Your task to perform on an android device: Show me productivity apps on the Play Store Image 0: 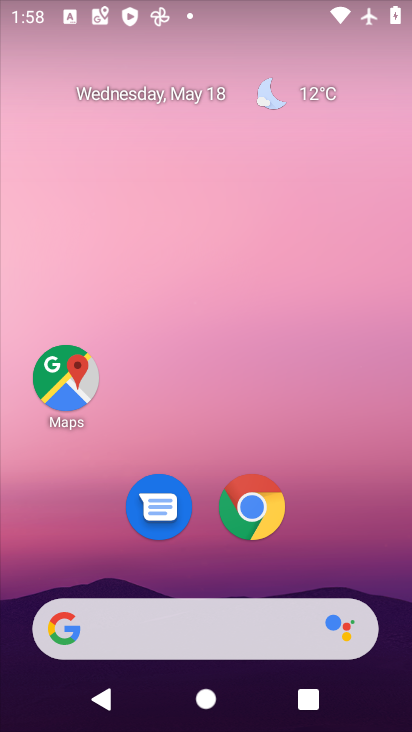
Step 0: drag from (380, 605) to (346, 153)
Your task to perform on an android device: Show me productivity apps on the Play Store Image 1: 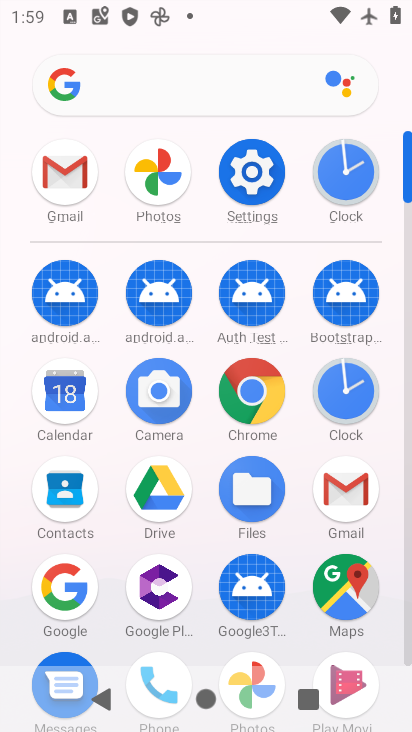
Step 1: click (408, 651)
Your task to perform on an android device: Show me productivity apps on the Play Store Image 2: 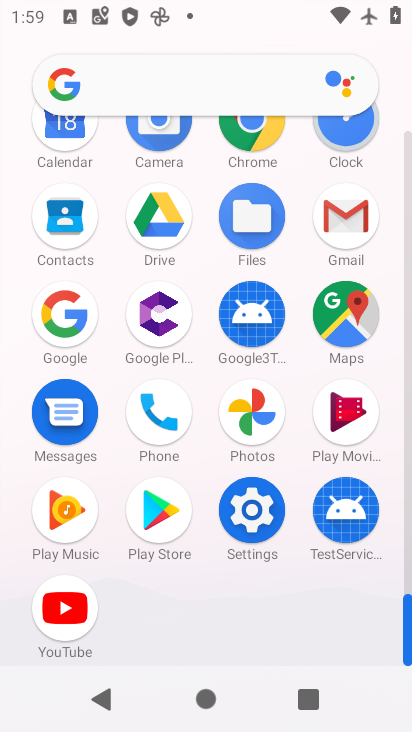
Step 2: click (152, 519)
Your task to perform on an android device: Show me productivity apps on the Play Store Image 3: 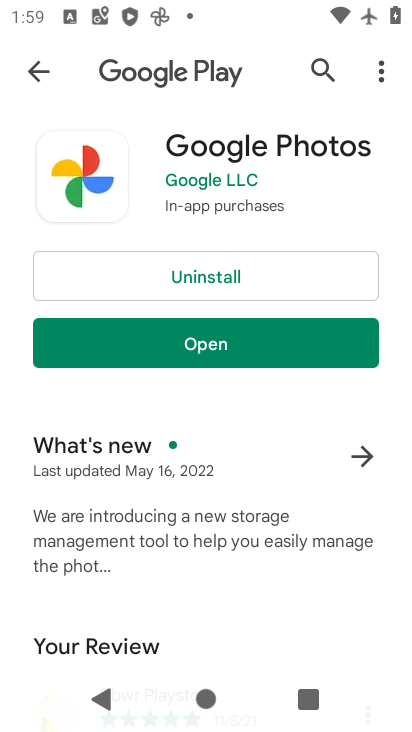
Step 3: press back button
Your task to perform on an android device: Show me productivity apps on the Play Store Image 4: 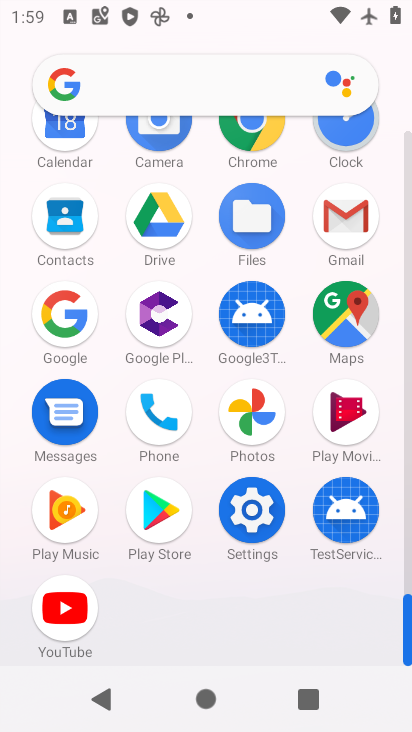
Step 4: click (166, 504)
Your task to perform on an android device: Show me productivity apps on the Play Store Image 5: 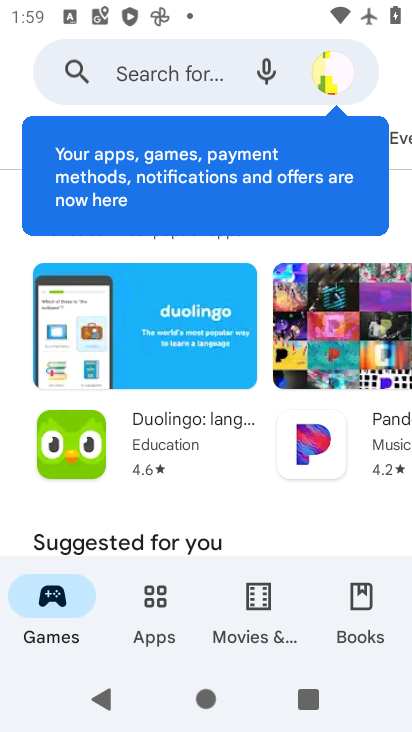
Step 5: click (158, 607)
Your task to perform on an android device: Show me productivity apps on the Play Store Image 6: 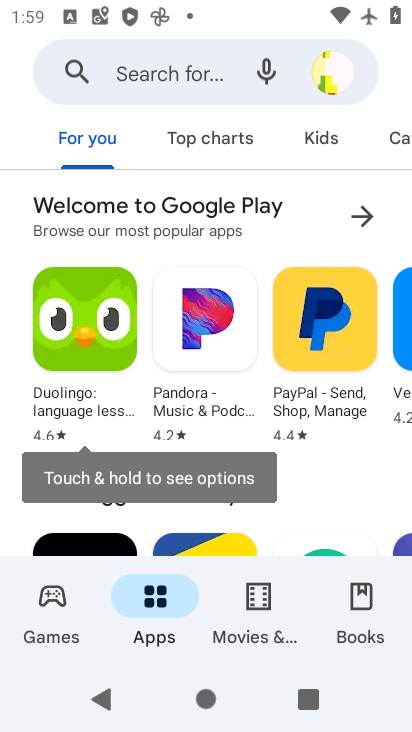
Step 6: click (390, 128)
Your task to perform on an android device: Show me productivity apps on the Play Store Image 7: 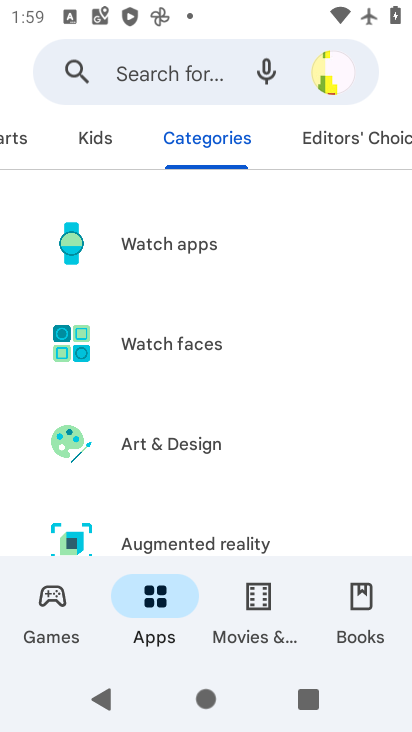
Step 7: drag from (213, 485) to (267, 145)
Your task to perform on an android device: Show me productivity apps on the Play Store Image 8: 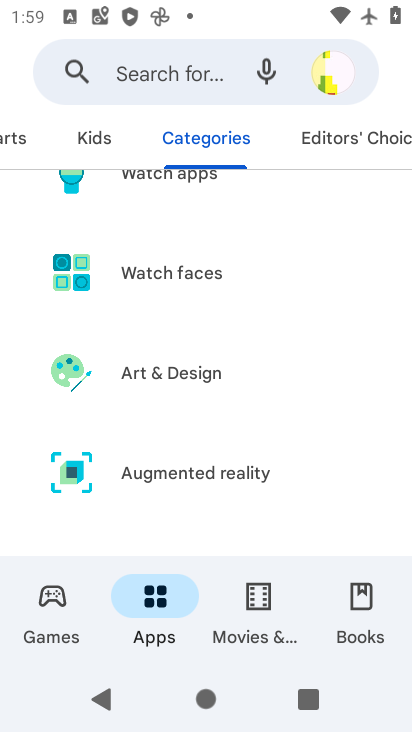
Step 8: drag from (288, 510) to (247, 144)
Your task to perform on an android device: Show me productivity apps on the Play Store Image 9: 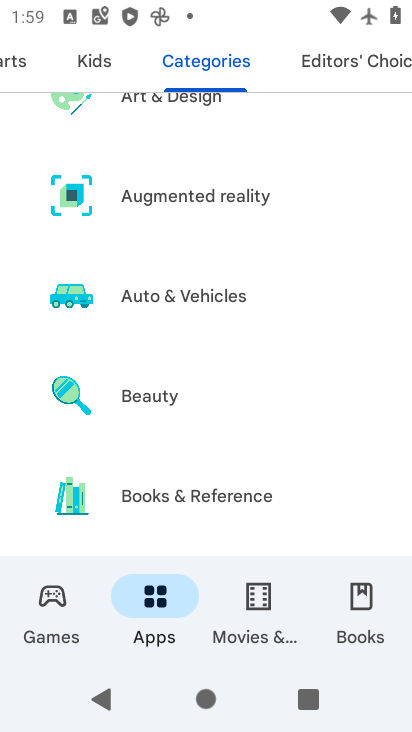
Step 9: drag from (281, 487) to (249, 80)
Your task to perform on an android device: Show me productivity apps on the Play Store Image 10: 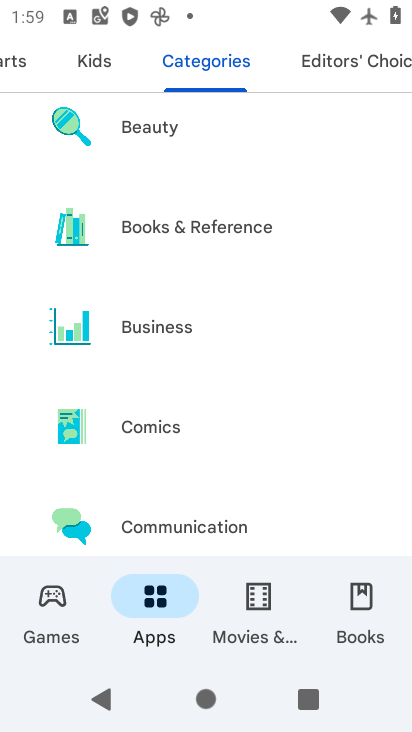
Step 10: drag from (289, 496) to (278, 103)
Your task to perform on an android device: Show me productivity apps on the Play Store Image 11: 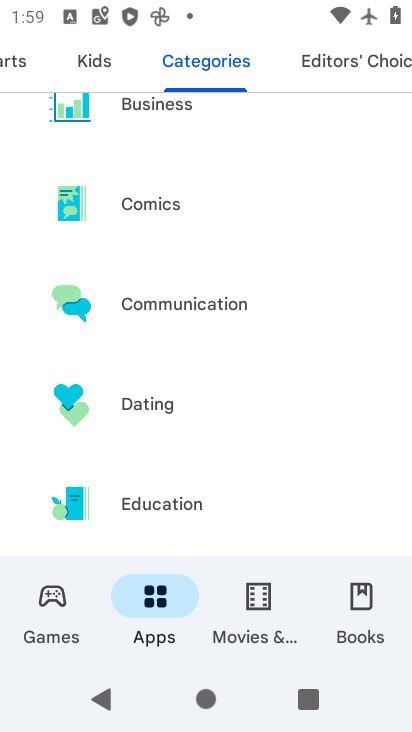
Step 11: drag from (280, 220) to (288, 132)
Your task to perform on an android device: Show me productivity apps on the Play Store Image 12: 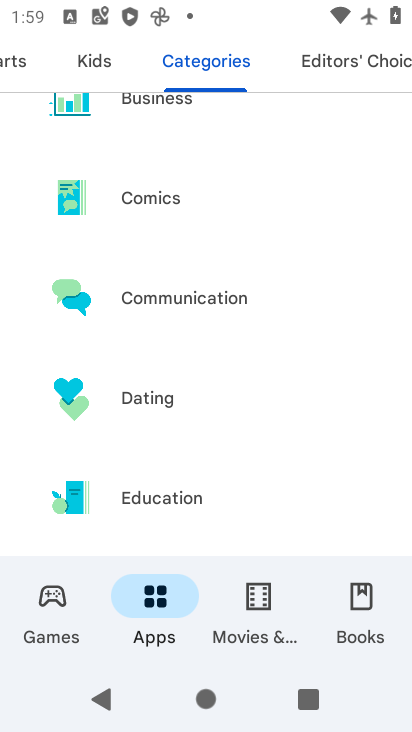
Step 12: drag from (255, 517) to (278, 118)
Your task to perform on an android device: Show me productivity apps on the Play Store Image 13: 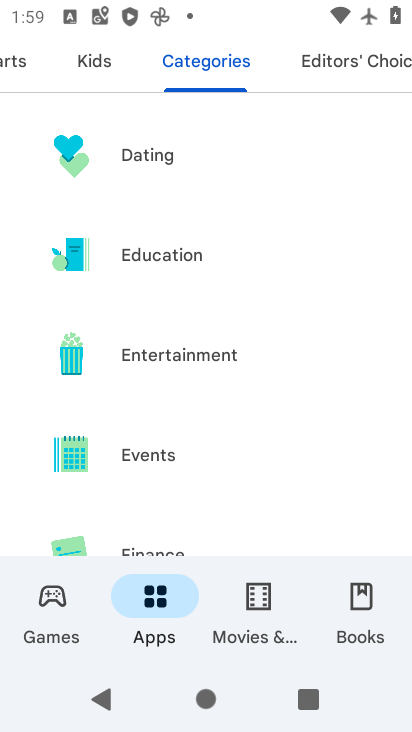
Step 13: drag from (249, 492) to (278, 126)
Your task to perform on an android device: Show me productivity apps on the Play Store Image 14: 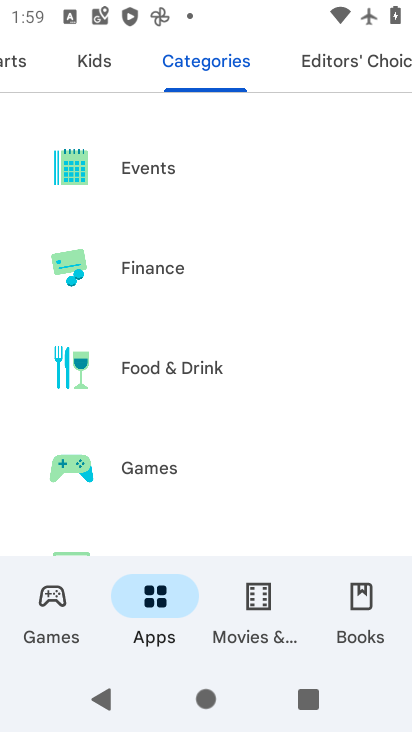
Step 14: drag from (252, 516) to (296, 148)
Your task to perform on an android device: Show me productivity apps on the Play Store Image 15: 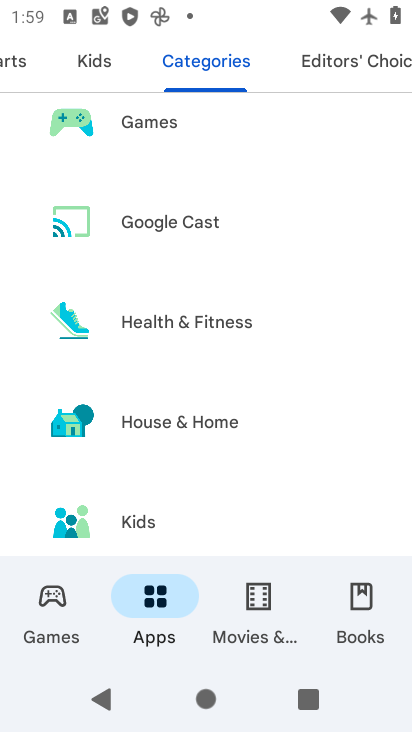
Step 15: drag from (239, 524) to (263, 52)
Your task to perform on an android device: Show me productivity apps on the Play Store Image 16: 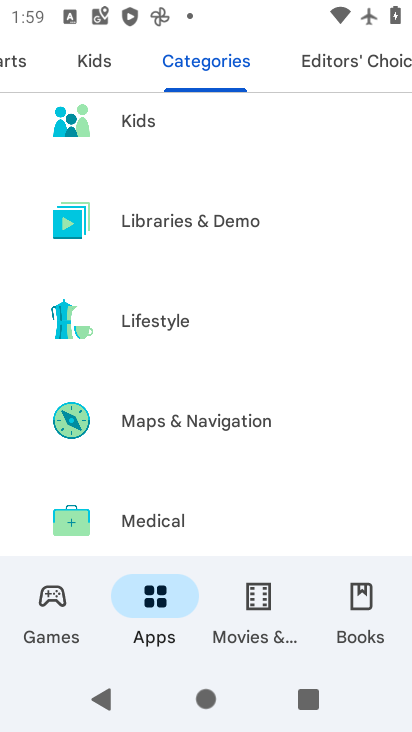
Step 16: drag from (281, 502) to (308, 122)
Your task to perform on an android device: Show me productivity apps on the Play Store Image 17: 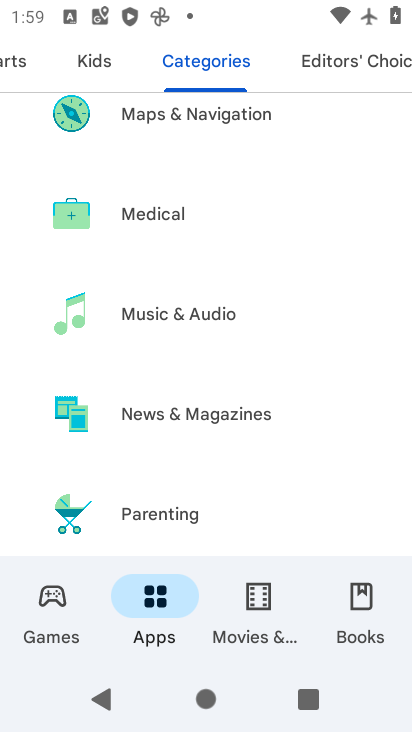
Step 17: drag from (268, 529) to (281, 68)
Your task to perform on an android device: Show me productivity apps on the Play Store Image 18: 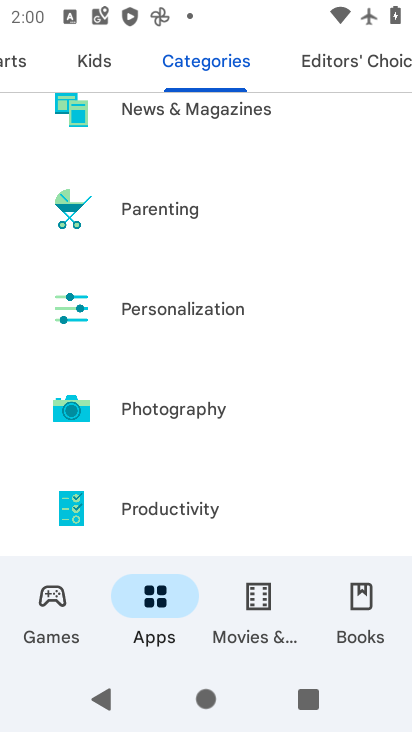
Step 18: click (175, 519)
Your task to perform on an android device: Show me productivity apps on the Play Store Image 19: 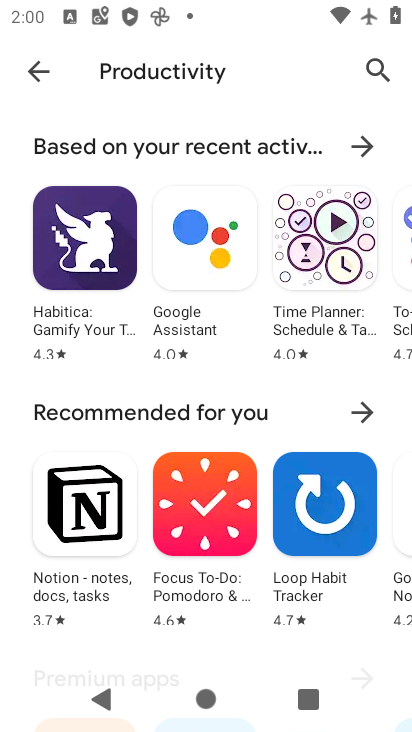
Step 19: drag from (328, 591) to (262, 217)
Your task to perform on an android device: Show me productivity apps on the Play Store Image 20: 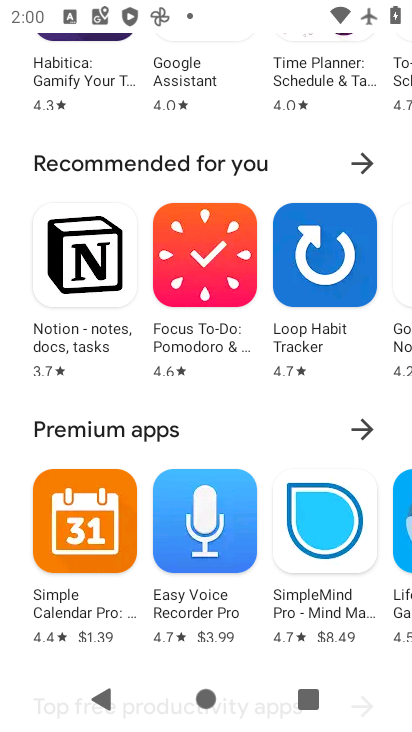
Step 20: drag from (306, 497) to (221, 126)
Your task to perform on an android device: Show me productivity apps on the Play Store Image 21: 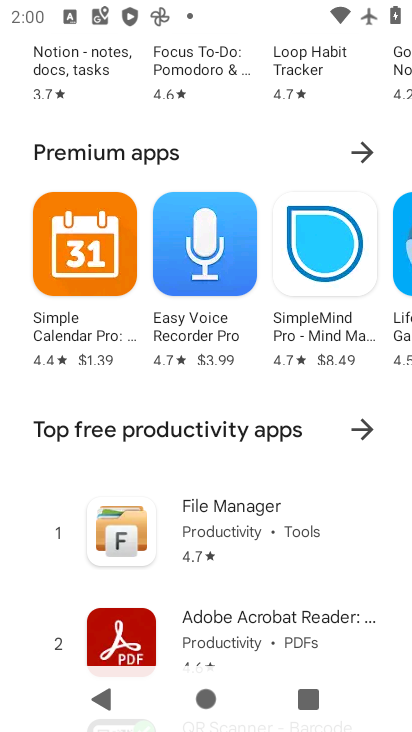
Step 21: drag from (256, 602) to (224, 418)
Your task to perform on an android device: Show me productivity apps on the Play Store Image 22: 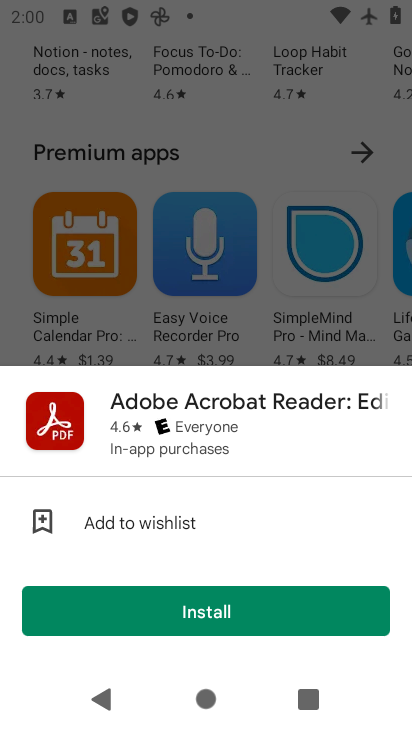
Step 22: click (245, 329)
Your task to perform on an android device: Show me productivity apps on the Play Store Image 23: 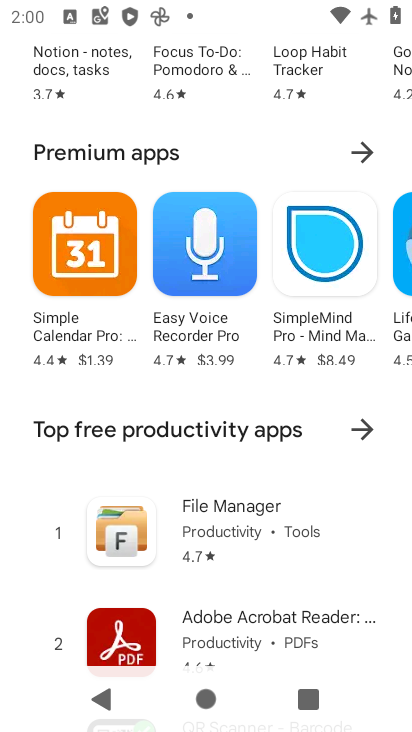
Step 23: click (357, 424)
Your task to perform on an android device: Show me productivity apps on the Play Store Image 24: 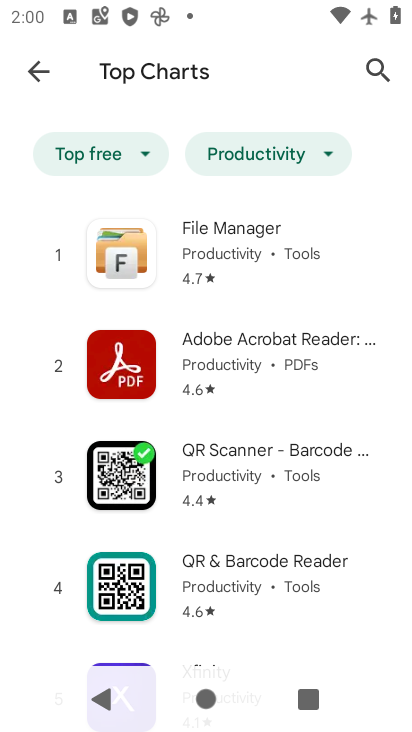
Step 24: task complete